Your task to perform on an android device: open chrome privacy settings Image 0: 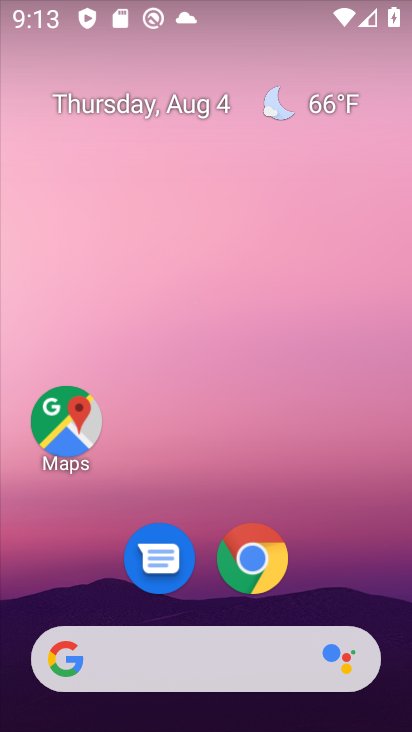
Step 0: drag from (359, 574) to (261, 136)
Your task to perform on an android device: open chrome privacy settings Image 1: 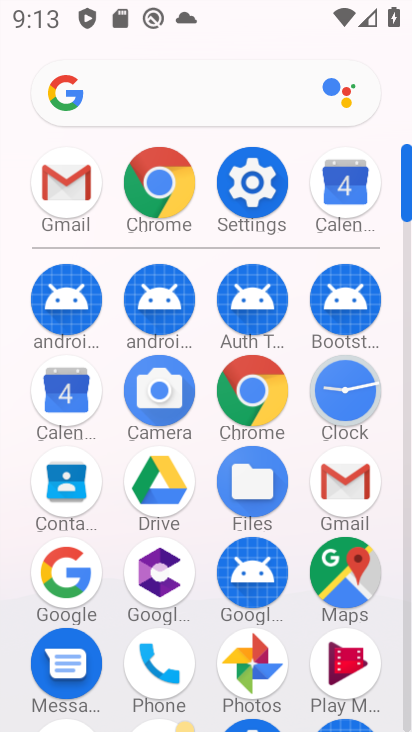
Step 1: click (254, 387)
Your task to perform on an android device: open chrome privacy settings Image 2: 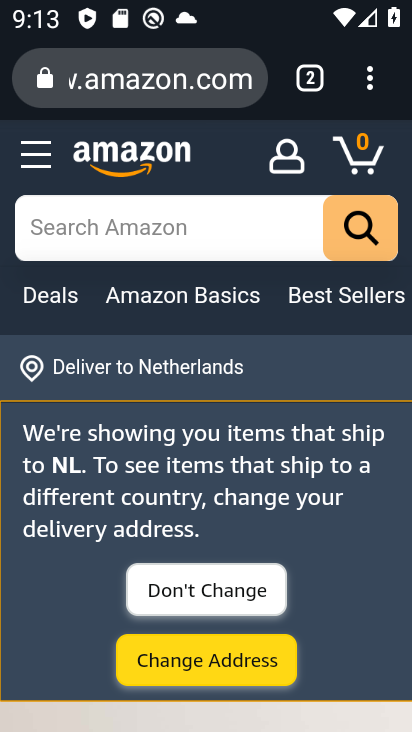
Step 2: drag from (368, 71) to (210, 595)
Your task to perform on an android device: open chrome privacy settings Image 3: 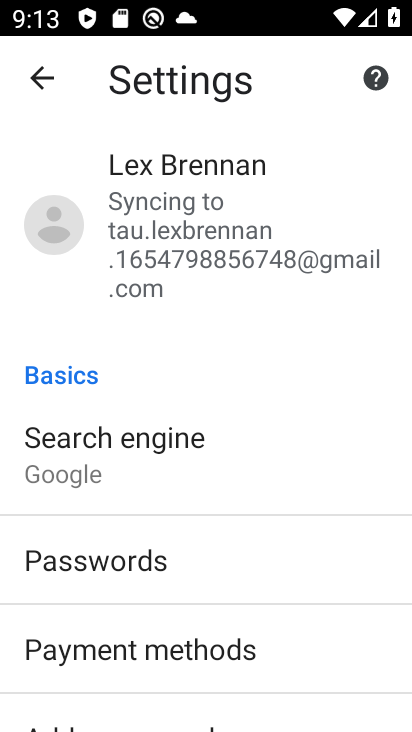
Step 3: drag from (283, 559) to (241, 64)
Your task to perform on an android device: open chrome privacy settings Image 4: 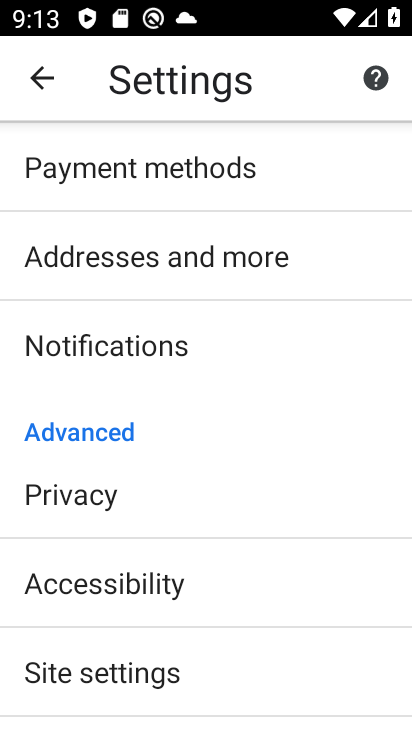
Step 4: drag from (207, 499) to (264, 114)
Your task to perform on an android device: open chrome privacy settings Image 5: 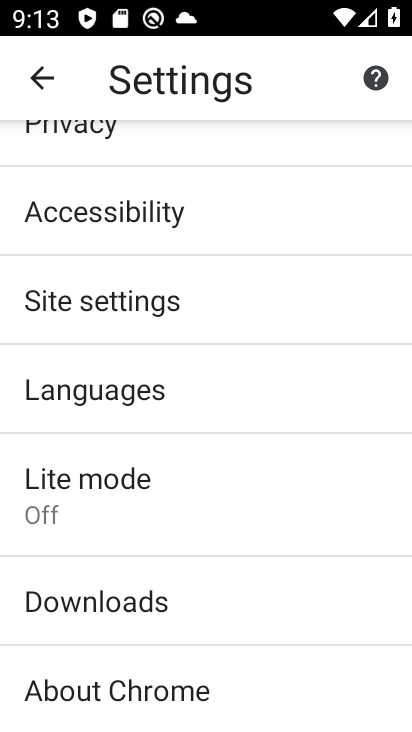
Step 5: drag from (227, 525) to (270, 215)
Your task to perform on an android device: open chrome privacy settings Image 6: 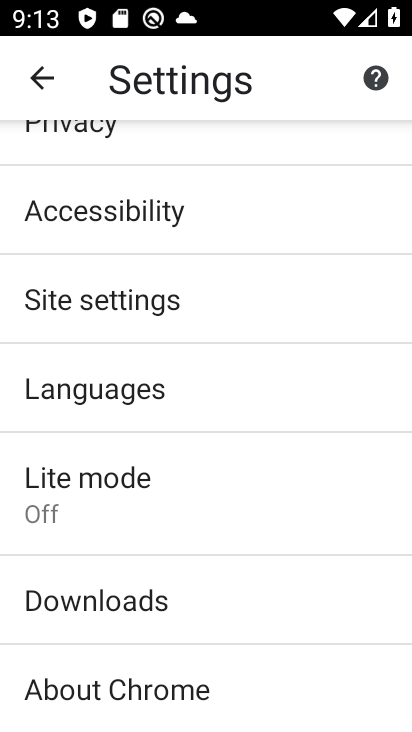
Step 6: drag from (284, 247) to (228, 503)
Your task to perform on an android device: open chrome privacy settings Image 7: 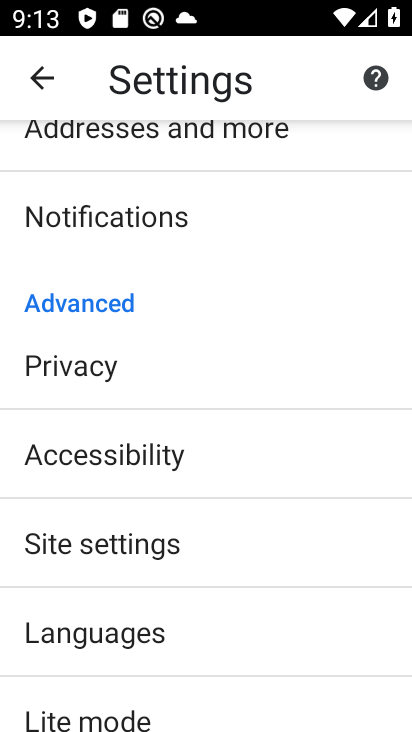
Step 7: click (90, 346)
Your task to perform on an android device: open chrome privacy settings Image 8: 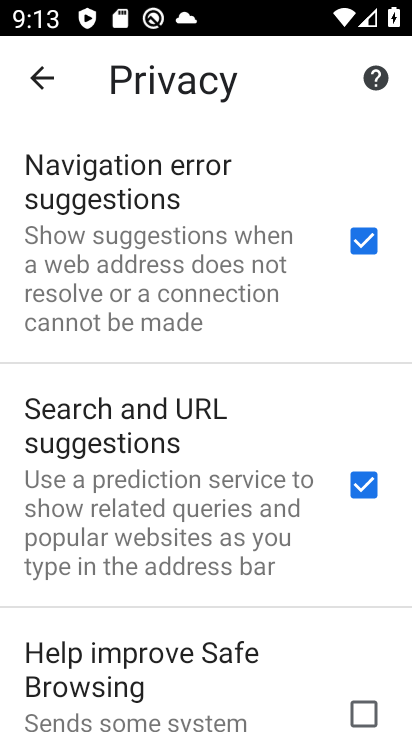
Step 8: task complete